Your task to perform on an android device: set default search engine in the chrome app Image 0: 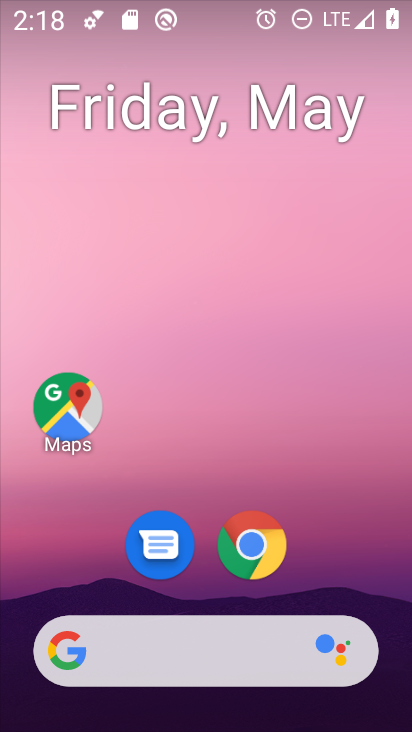
Step 0: drag from (331, 584) to (303, 327)
Your task to perform on an android device: set default search engine in the chrome app Image 1: 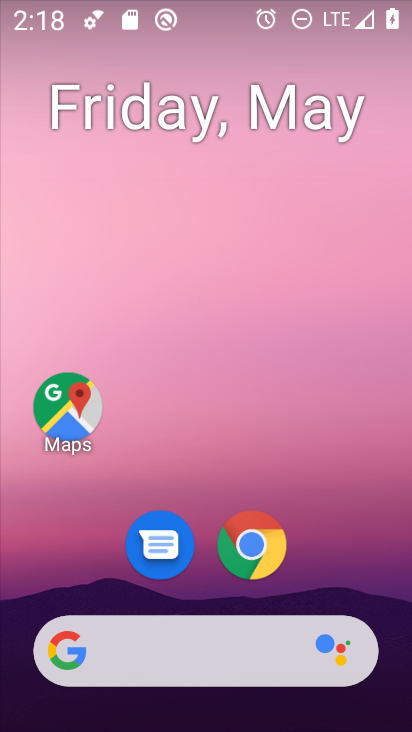
Step 1: drag from (350, 553) to (323, 256)
Your task to perform on an android device: set default search engine in the chrome app Image 2: 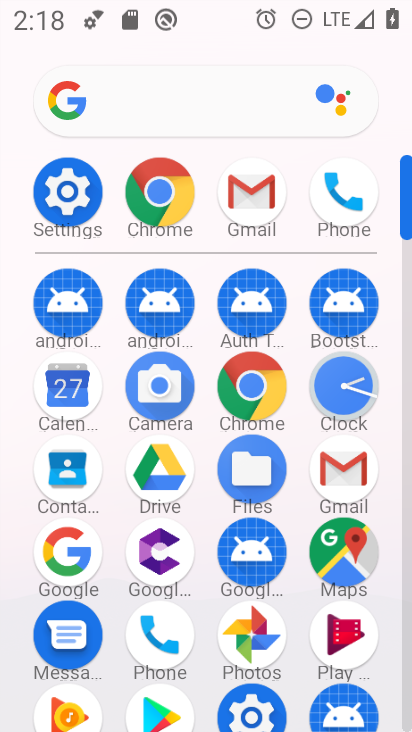
Step 2: click (235, 399)
Your task to perform on an android device: set default search engine in the chrome app Image 3: 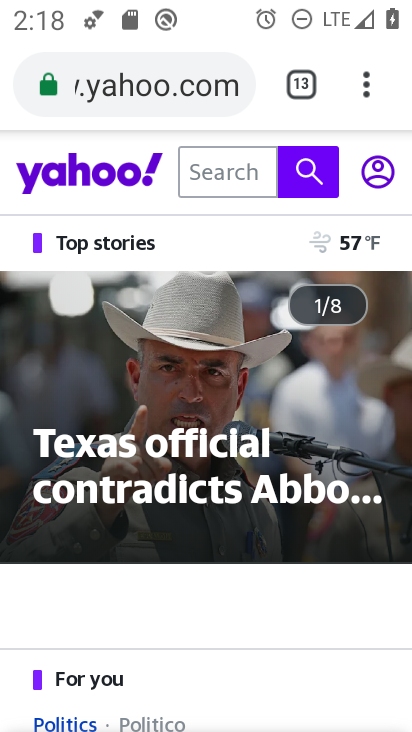
Step 3: click (385, 88)
Your task to perform on an android device: set default search engine in the chrome app Image 4: 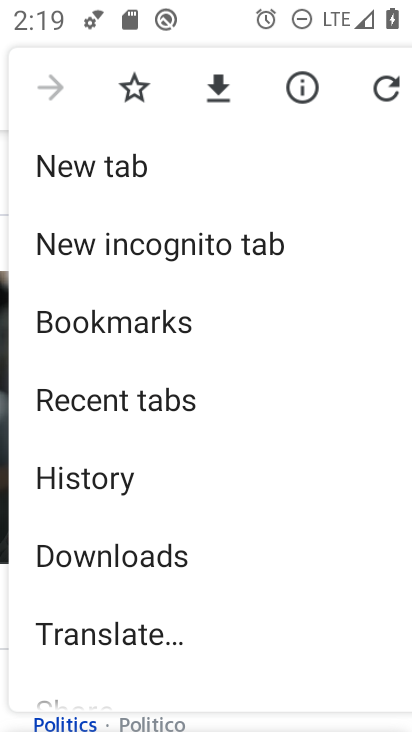
Step 4: drag from (222, 569) to (192, 206)
Your task to perform on an android device: set default search engine in the chrome app Image 5: 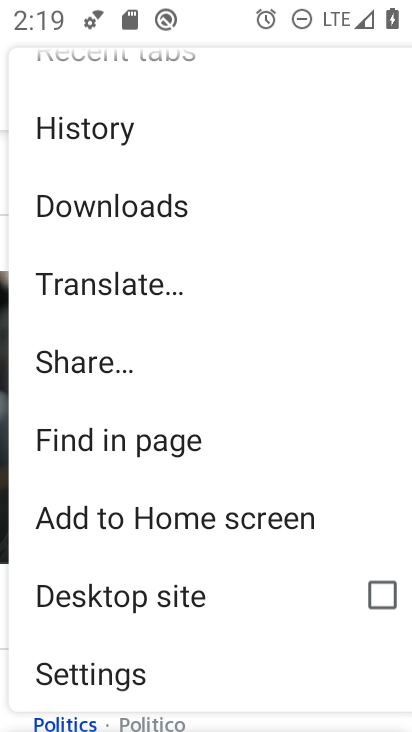
Step 5: drag from (163, 626) to (190, 263)
Your task to perform on an android device: set default search engine in the chrome app Image 6: 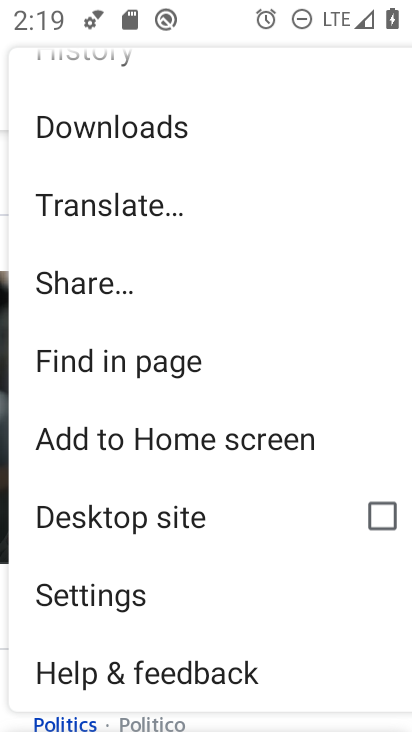
Step 6: click (150, 587)
Your task to perform on an android device: set default search engine in the chrome app Image 7: 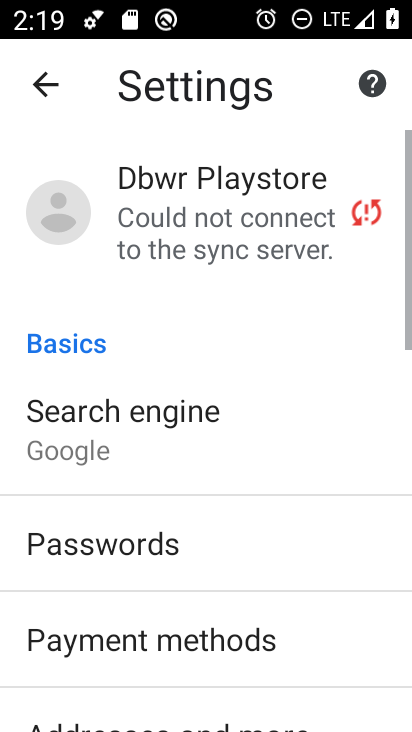
Step 7: click (183, 430)
Your task to perform on an android device: set default search engine in the chrome app Image 8: 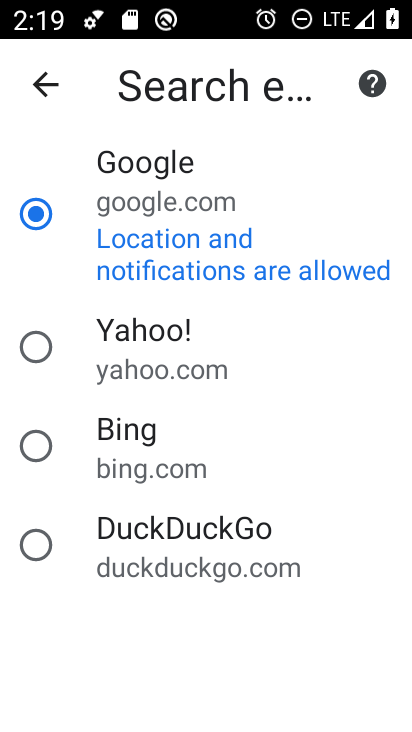
Step 8: click (150, 444)
Your task to perform on an android device: set default search engine in the chrome app Image 9: 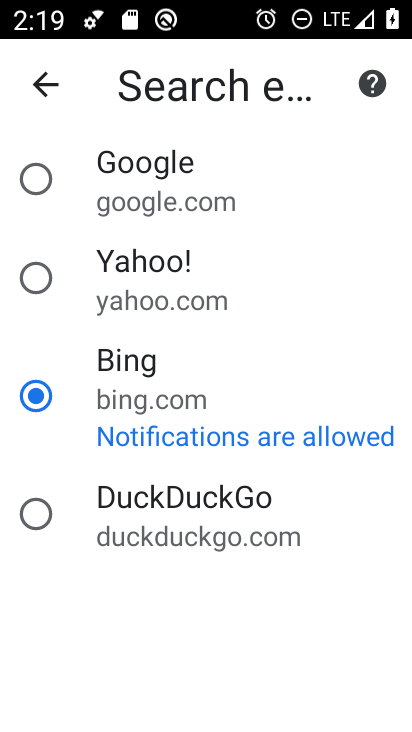
Step 9: task complete